Your task to perform on an android device: change the clock display to analog Image 0: 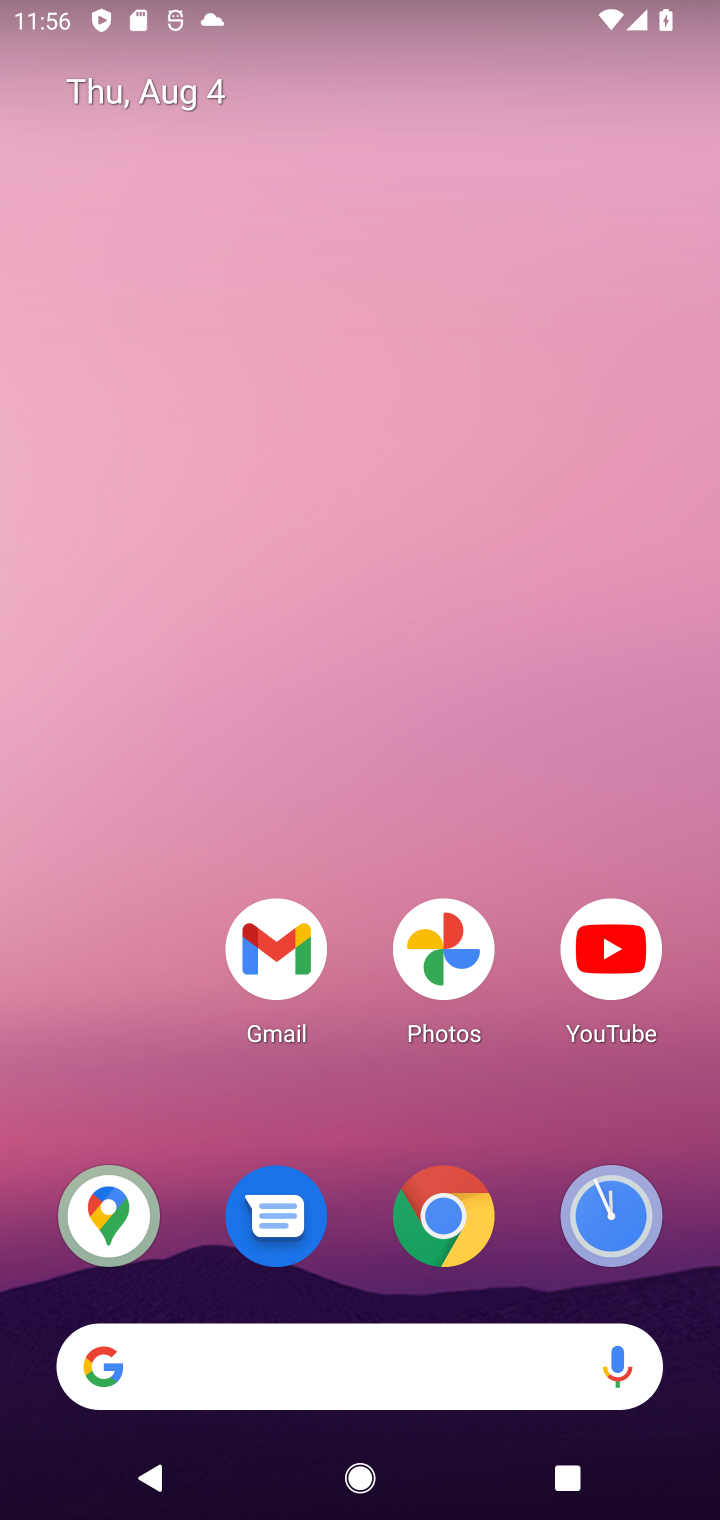
Step 0: drag from (328, 1387) to (550, 193)
Your task to perform on an android device: change the clock display to analog Image 1: 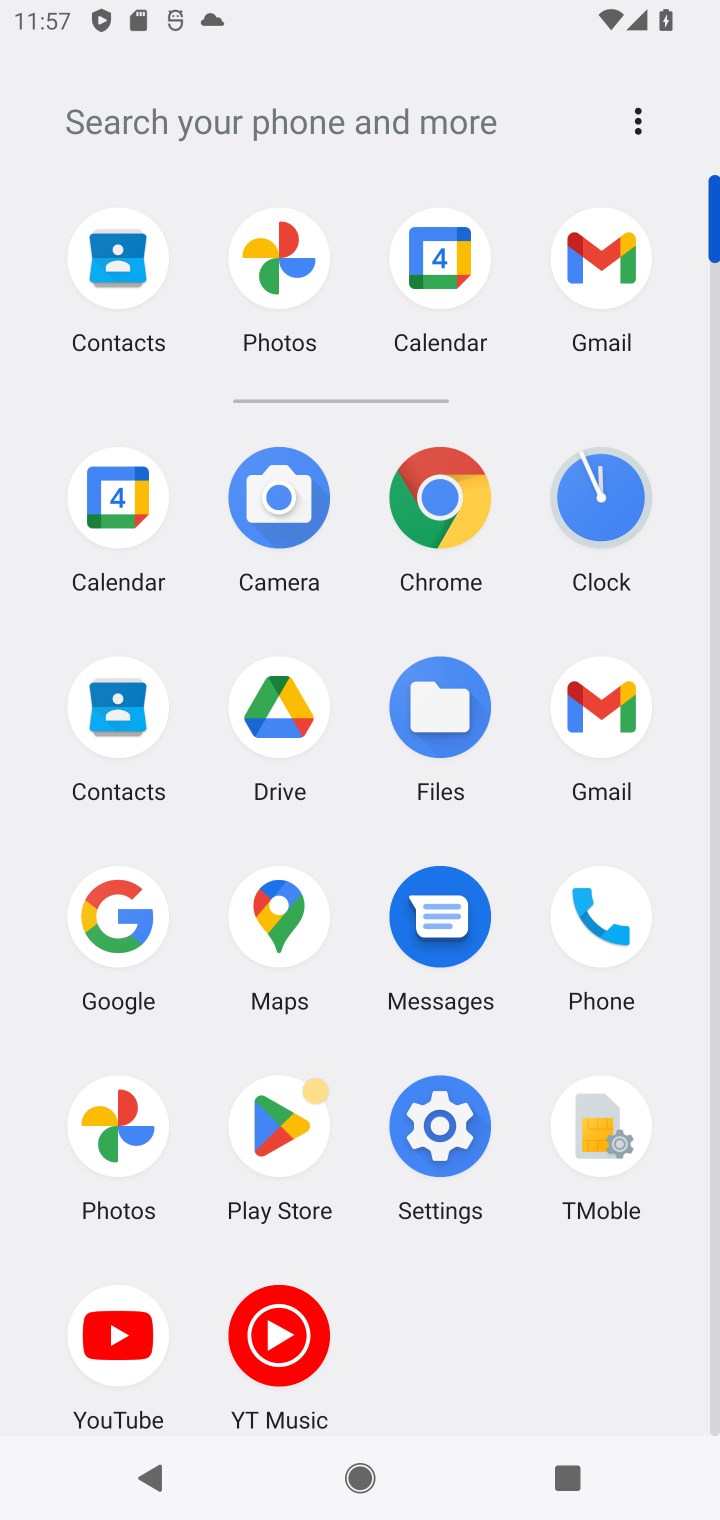
Step 1: click (600, 499)
Your task to perform on an android device: change the clock display to analog Image 2: 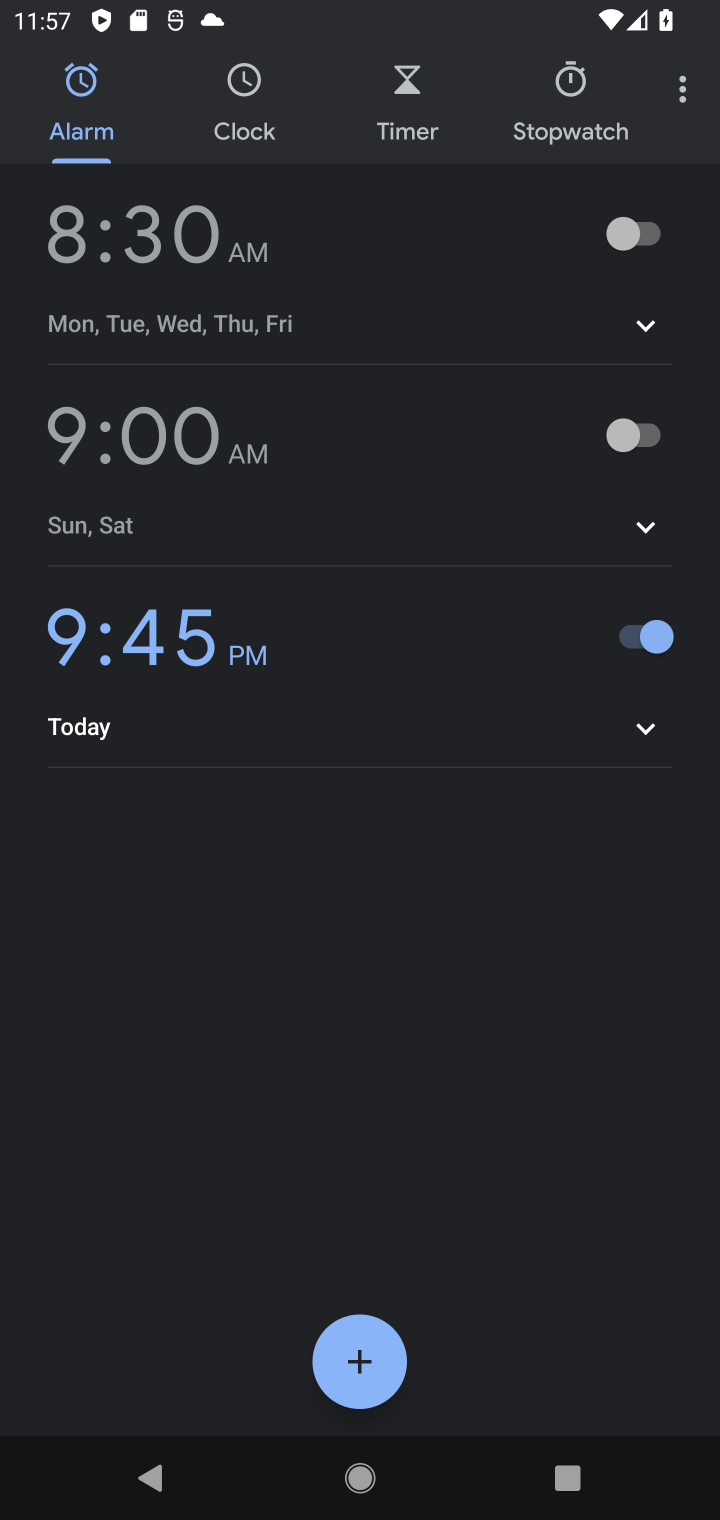
Step 2: click (682, 97)
Your task to perform on an android device: change the clock display to analog Image 3: 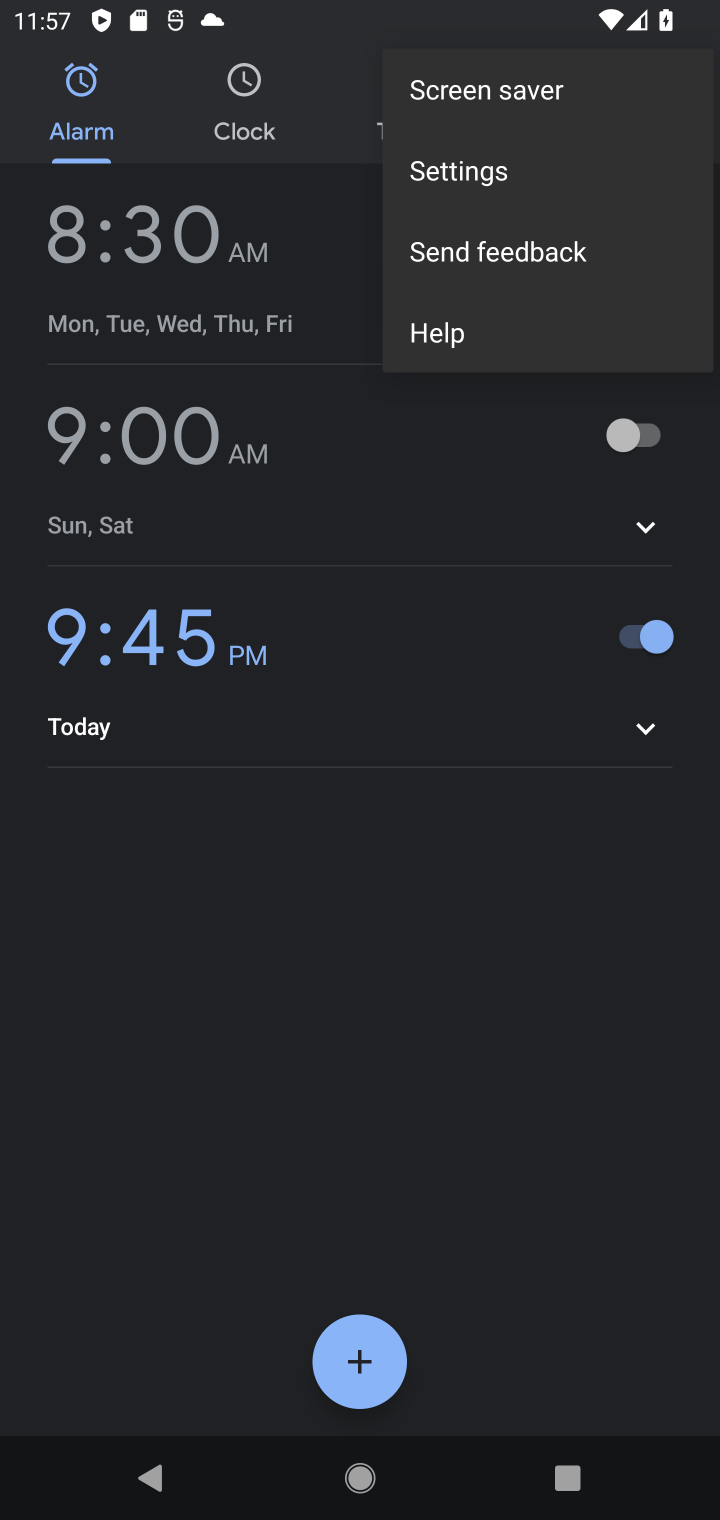
Step 3: click (474, 177)
Your task to perform on an android device: change the clock display to analog Image 4: 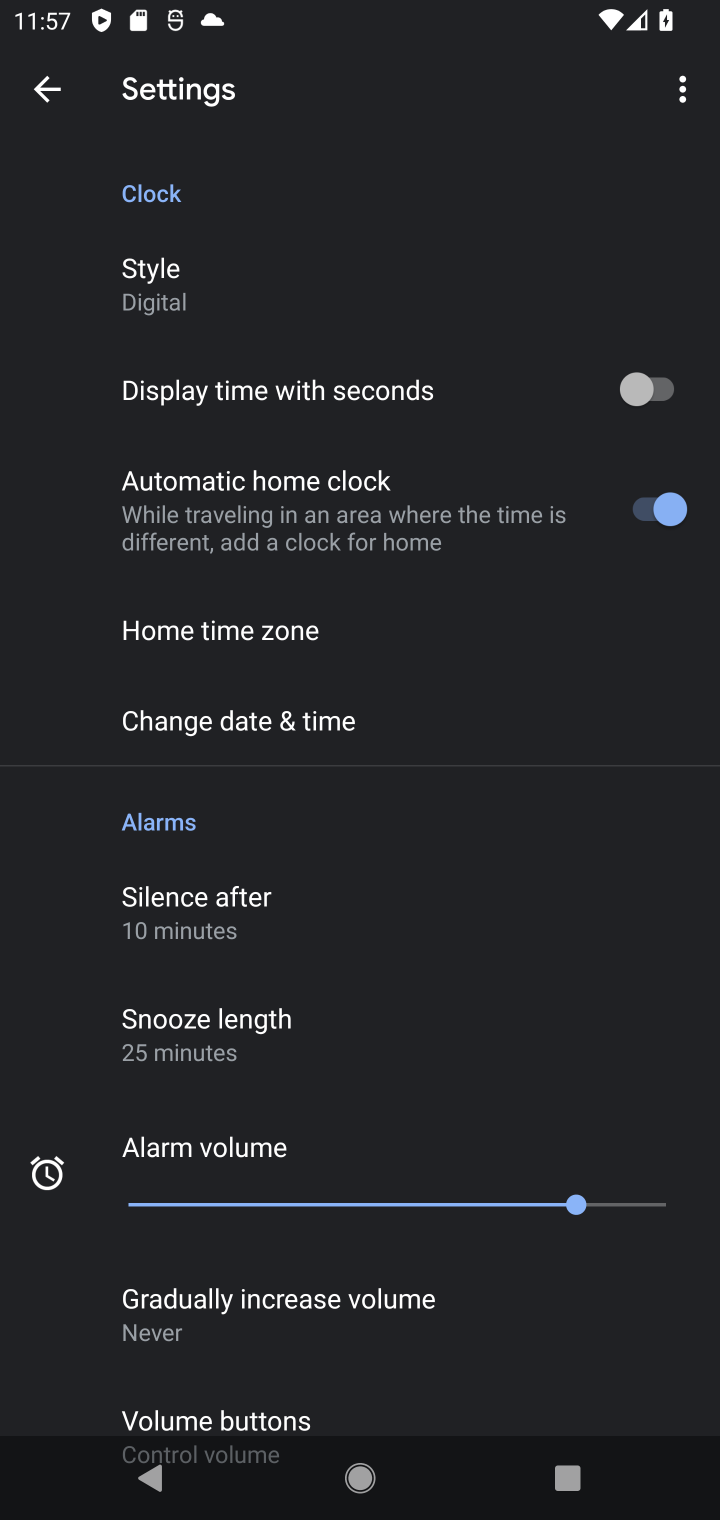
Step 4: click (157, 302)
Your task to perform on an android device: change the clock display to analog Image 5: 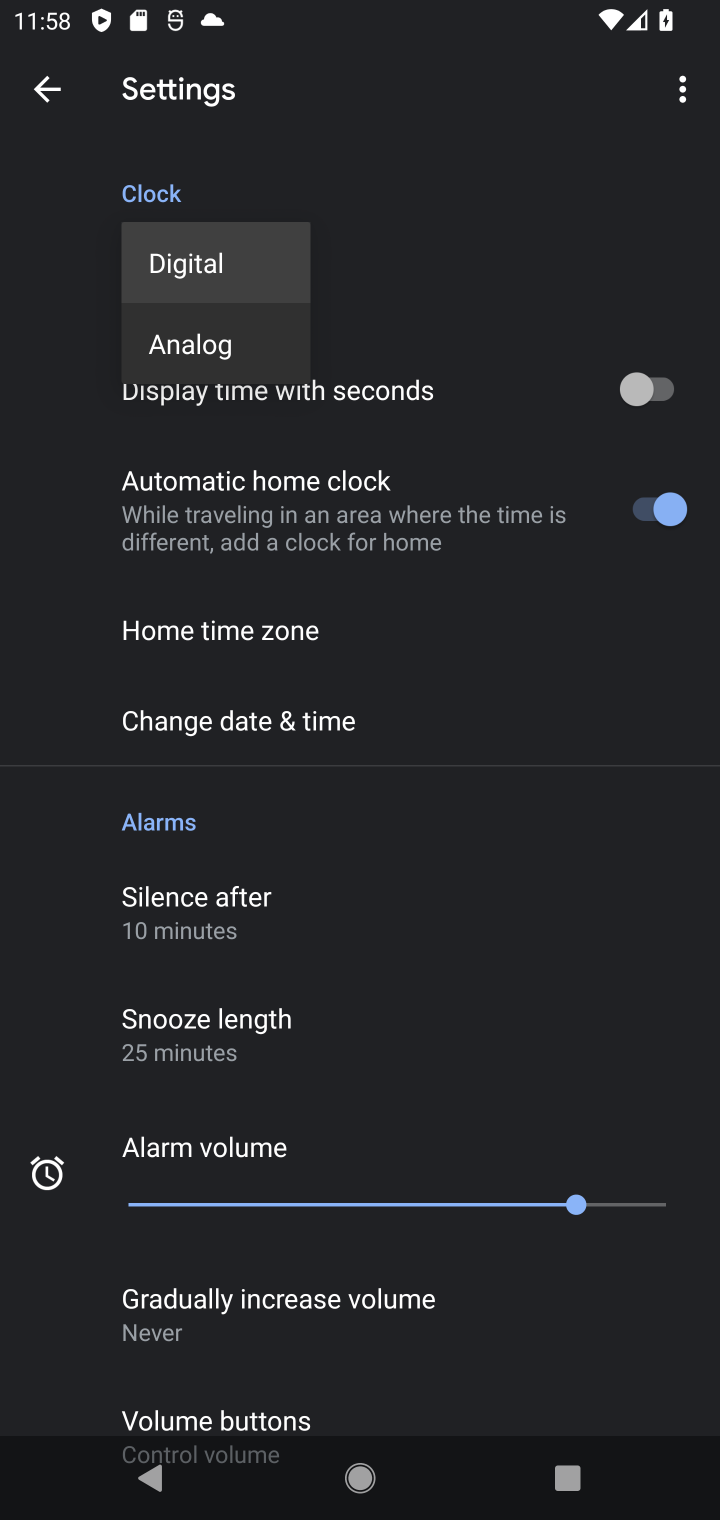
Step 5: click (195, 340)
Your task to perform on an android device: change the clock display to analog Image 6: 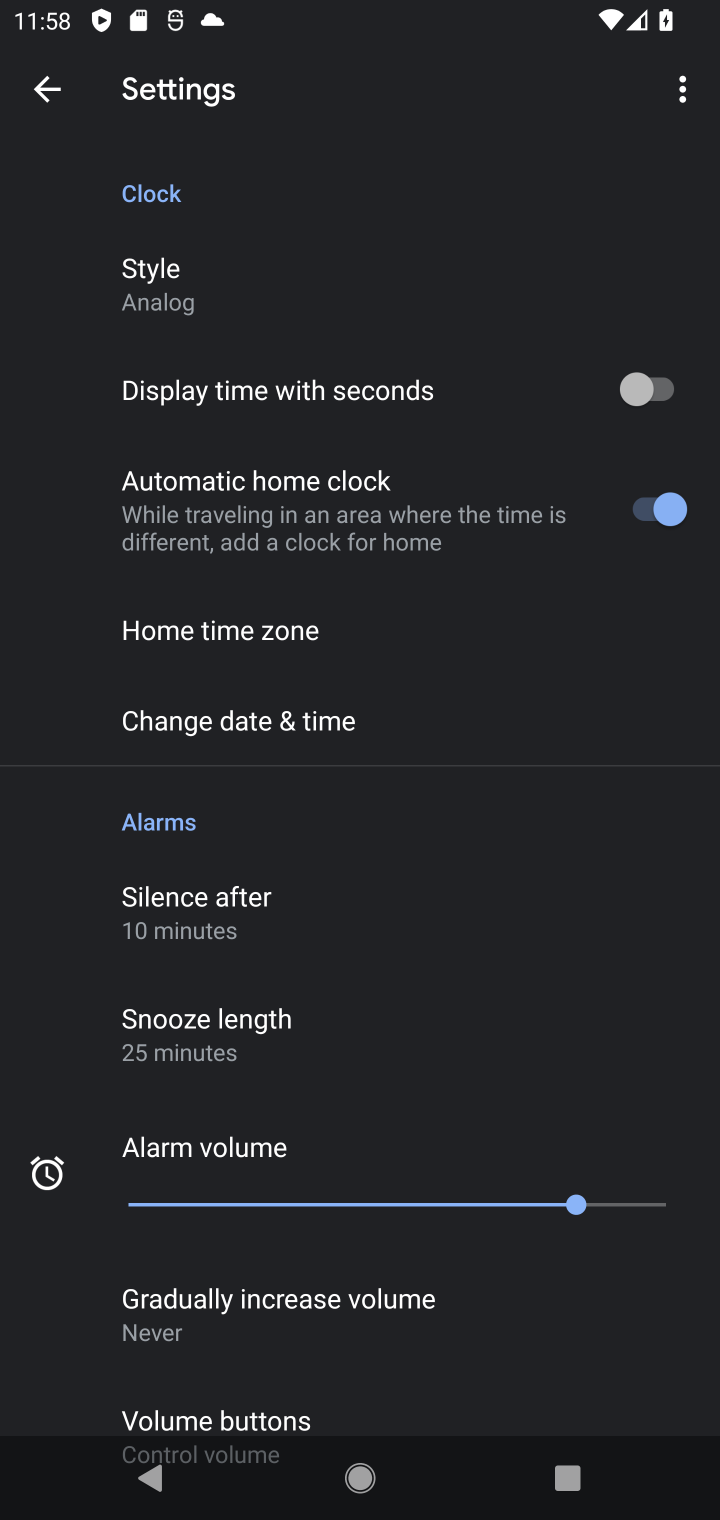
Step 6: task complete